Your task to perform on an android device: What time is it? Image 0: 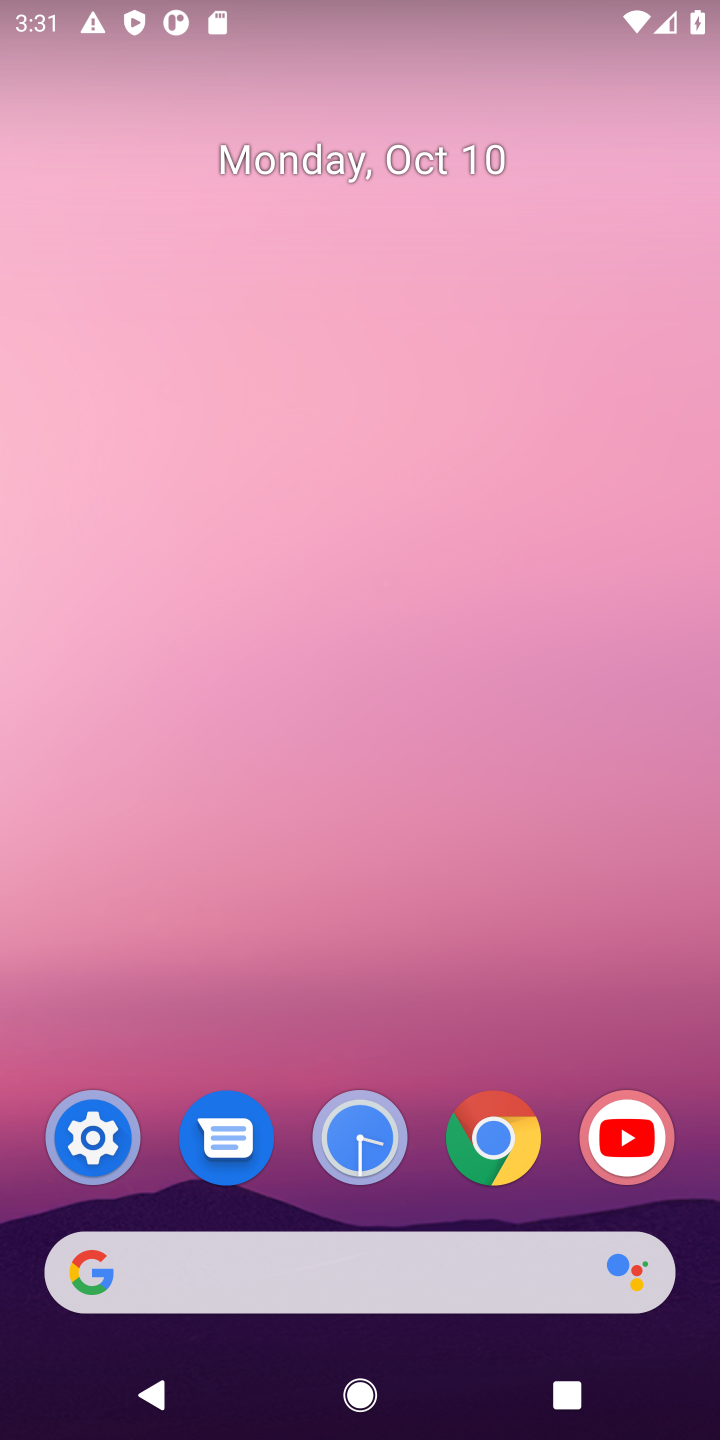
Step 0: drag from (215, 998) to (124, 16)
Your task to perform on an android device: What time is it? Image 1: 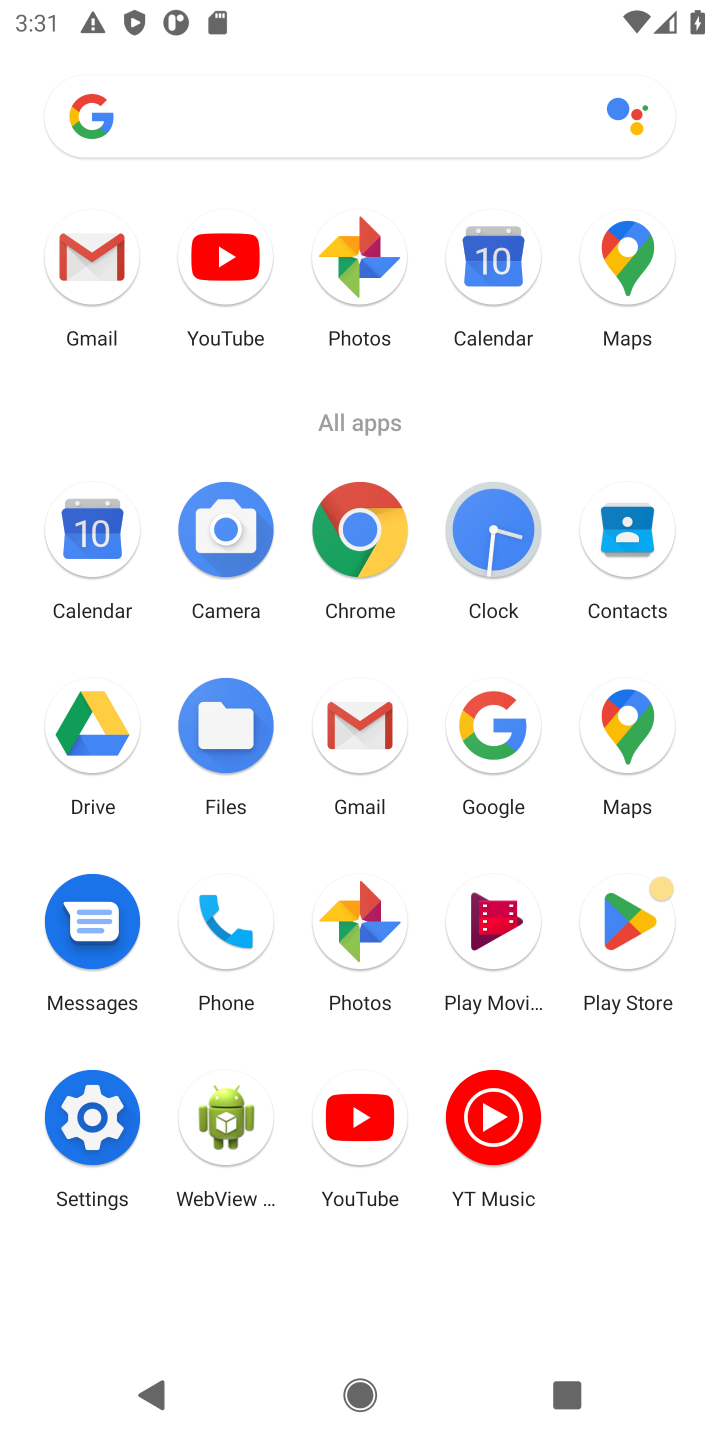
Step 1: click (504, 539)
Your task to perform on an android device: What time is it? Image 2: 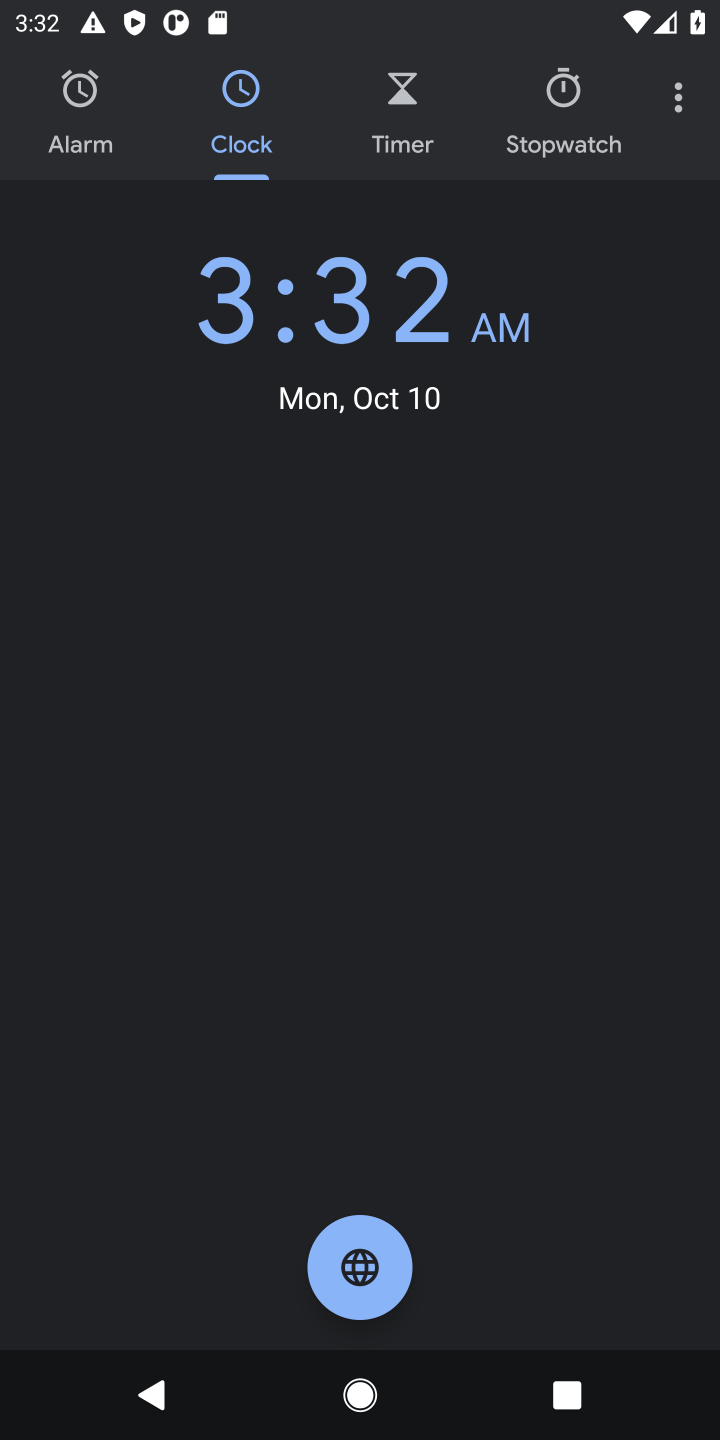
Step 2: task complete